Your task to perform on an android device: Open location settings Image 0: 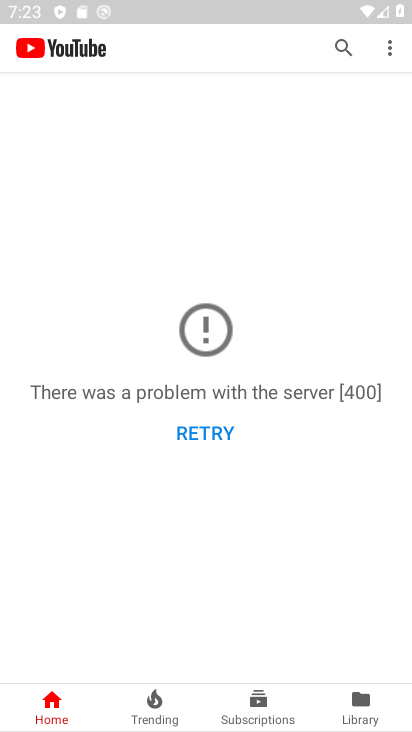
Step 0: press home button
Your task to perform on an android device: Open location settings Image 1: 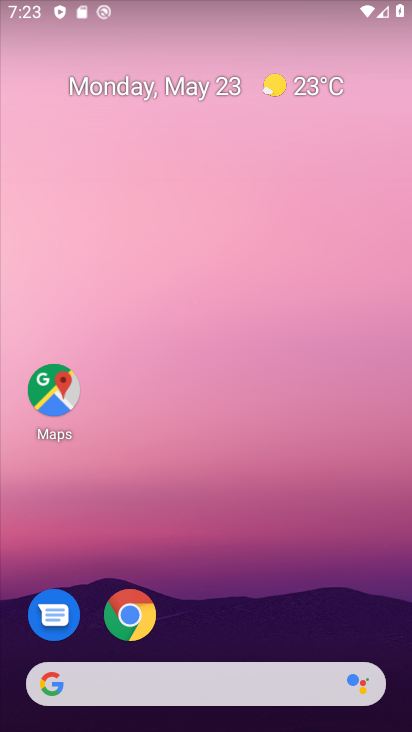
Step 1: drag from (246, 572) to (197, 203)
Your task to perform on an android device: Open location settings Image 2: 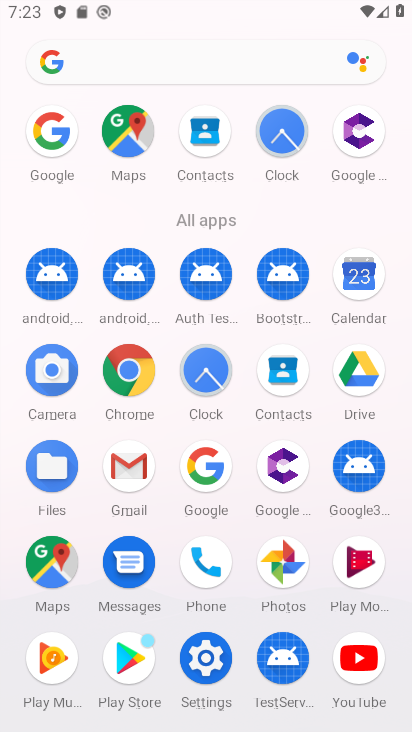
Step 2: click (205, 659)
Your task to perform on an android device: Open location settings Image 3: 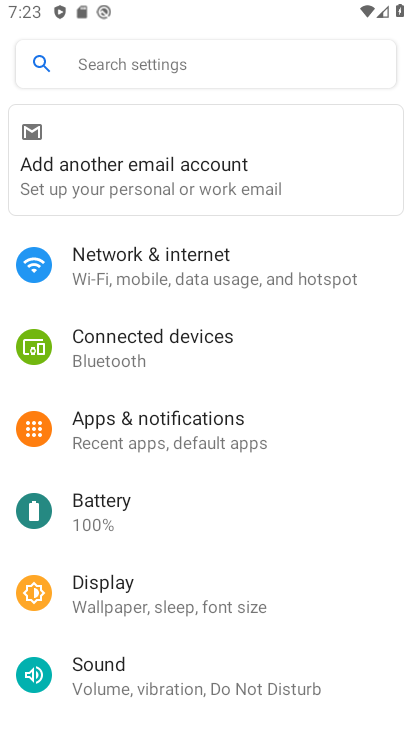
Step 3: drag from (191, 549) to (210, 478)
Your task to perform on an android device: Open location settings Image 4: 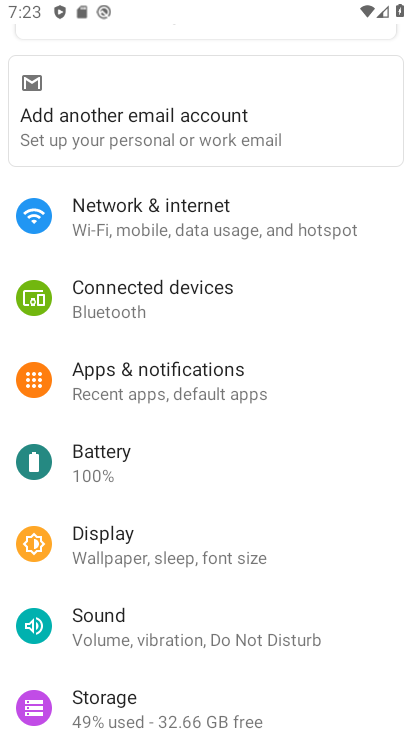
Step 4: drag from (171, 591) to (213, 514)
Your task to perform on an android device: Open location settings Image 5: 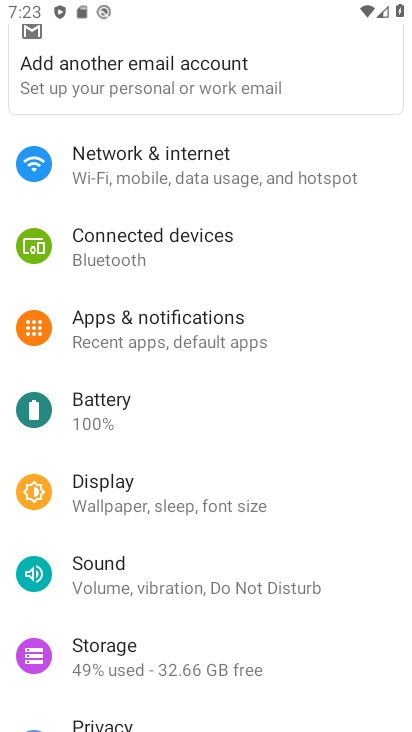
Step 5: drag from (155, 614) to (169, 508)
Your task to perform on an android device: Open location settings Image 6: 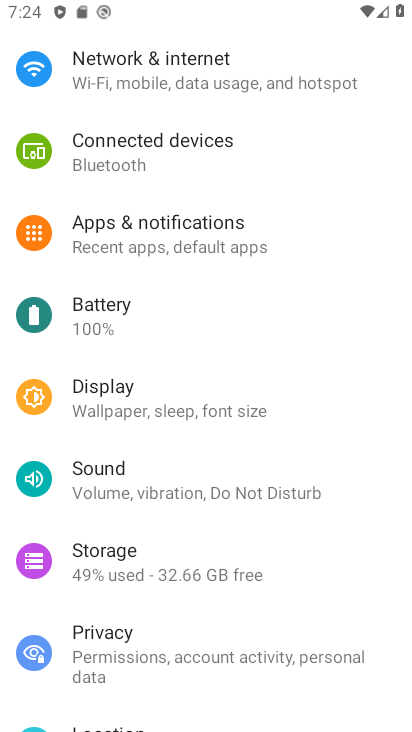
Step 6: drag from (166, 527) to (203, 444)
Your task to perform on an android device: Open location settings Image 7: 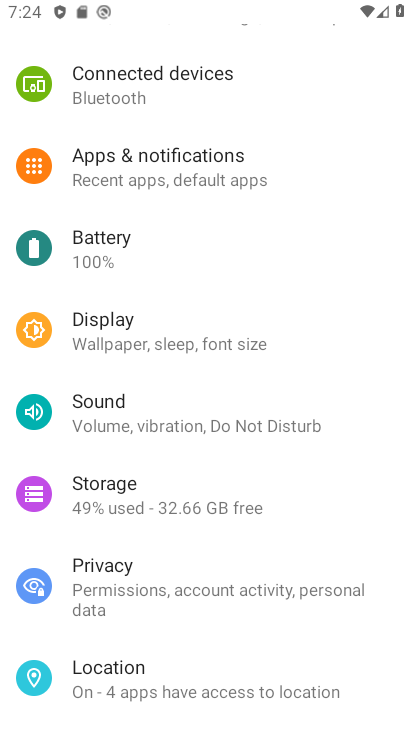
Step 7: drag from (154, 530) to (223, 422)
Your task to perform on an android device: Open location settings Image 8: 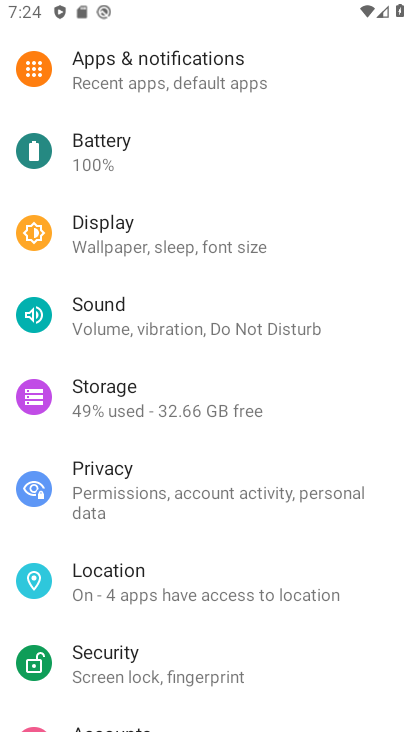
Step 8: drag from (155, 531) to (215, 439)
Your task to perform on an android device: Open location settings Image 9: 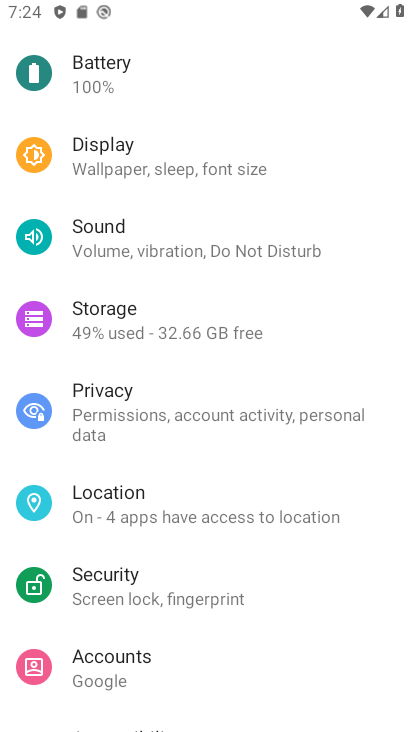
Step 9: click (197, 524)
Your task to perform on an android device: Open location settings Image 10: 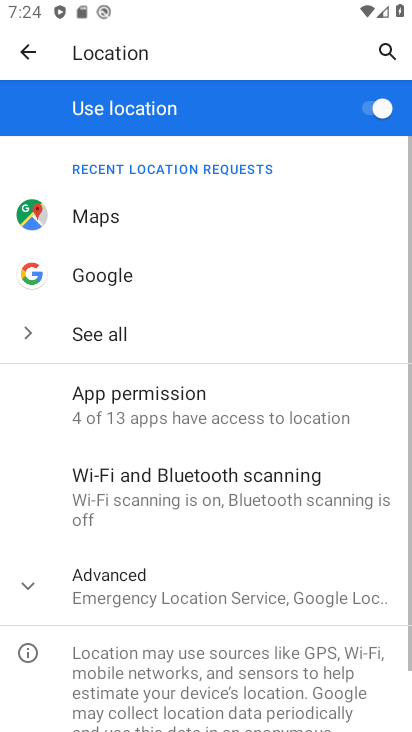
Step 10: task complete